Your task to perform on an android device: toggle improve location accuracy Image 0: 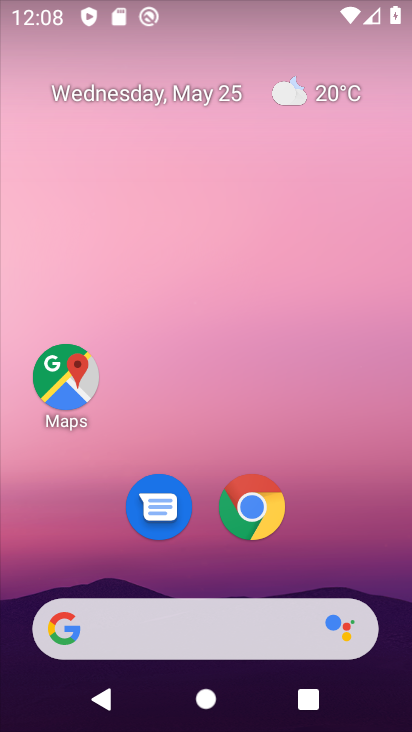
Step 0: drag from (356, 546) to (302, 101)
Your task to perform on an android device: toggle improve location accuracy Image 1: 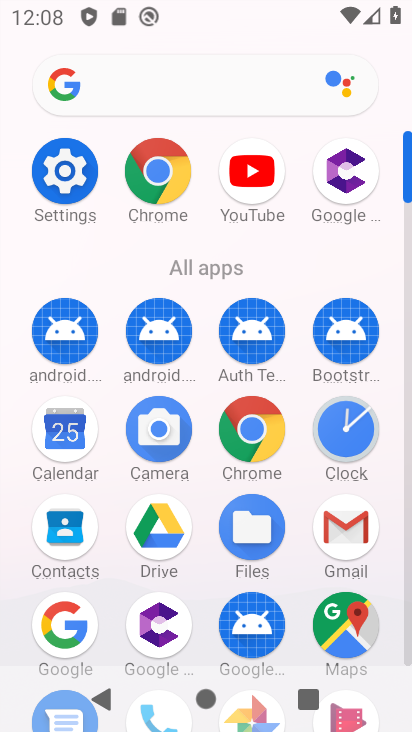
Step 1: click (54, 198)
Your task to perform on an android device: toggle improve location accuracy Image 2: 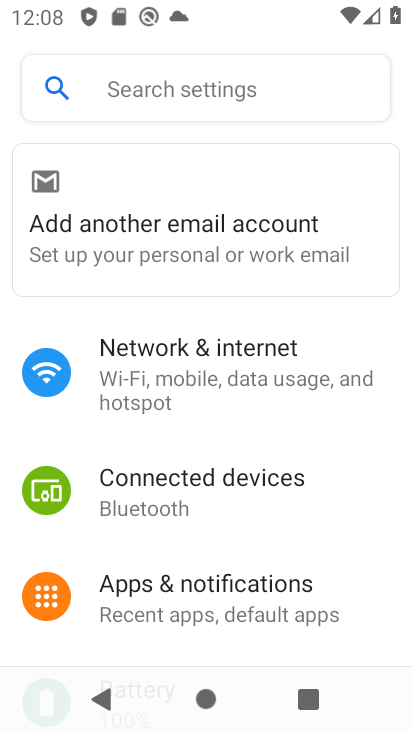
Step 2: drag from (194, 566) to (194, 223)
Your task to perform on an android device: toggle improve location accuracy Image 3: 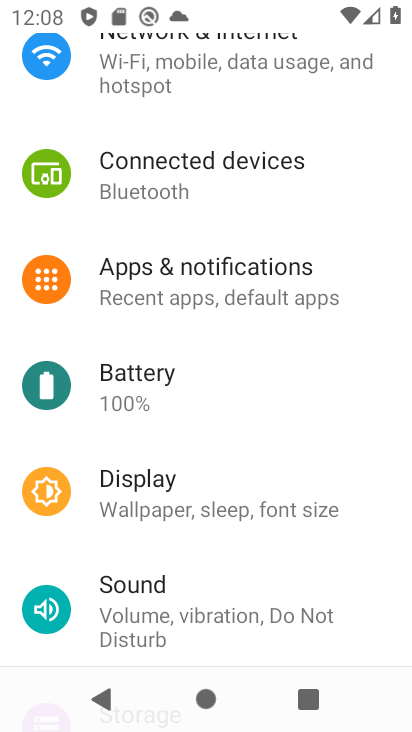
Step 3: drag from (225, 572) to (243, 240)
Your task to perform on an android device: toggle improve location accuracy Image 4: 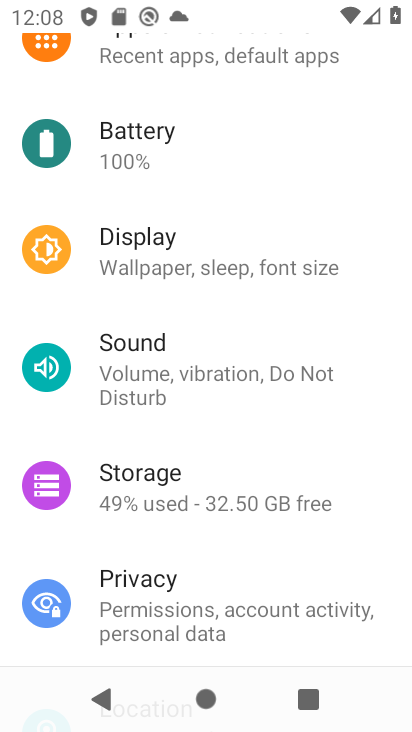
Step 4: drag from (226, 505) to (232, 173)
Your task to perform on an android device: toggle improve location accuracy Image 5: 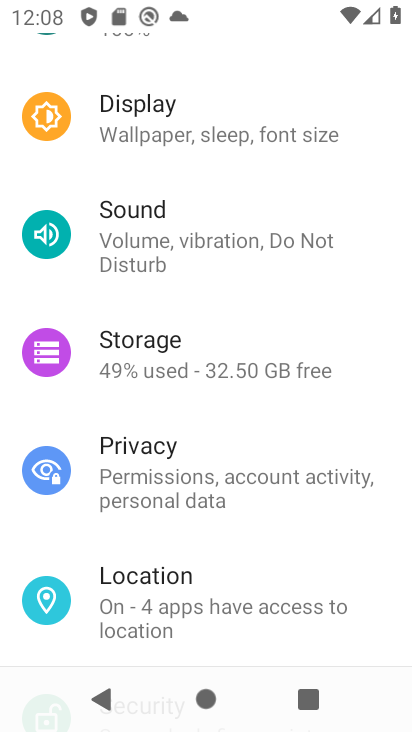
Step 5: click (182, 589)
Your task to perform on an android device: toggle improve location accuracy Image 6: 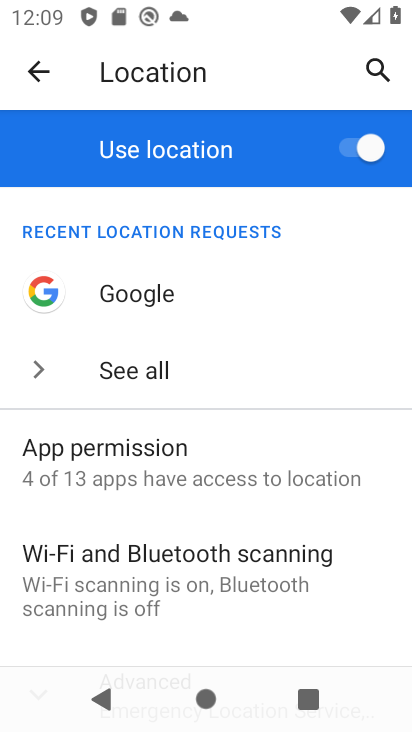
Step 6: drag from (223, 563) to (242, 259)
Your task to perform on an android device: toggle improve location accuracy Image 7: 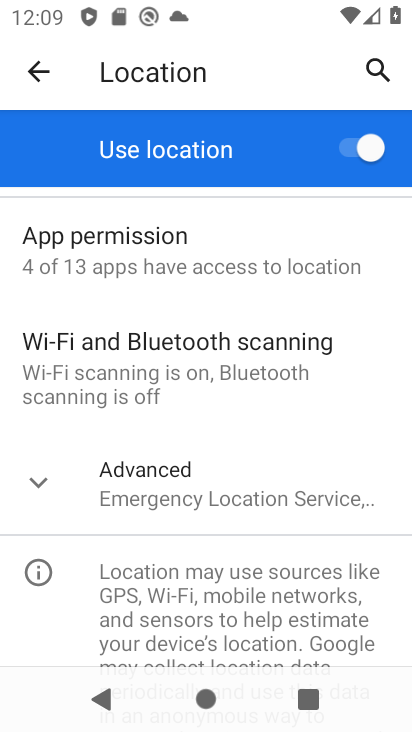
Step 7: click (219, 507)
Your task to perform on an android device: toggle improve location accuracy Image 8: 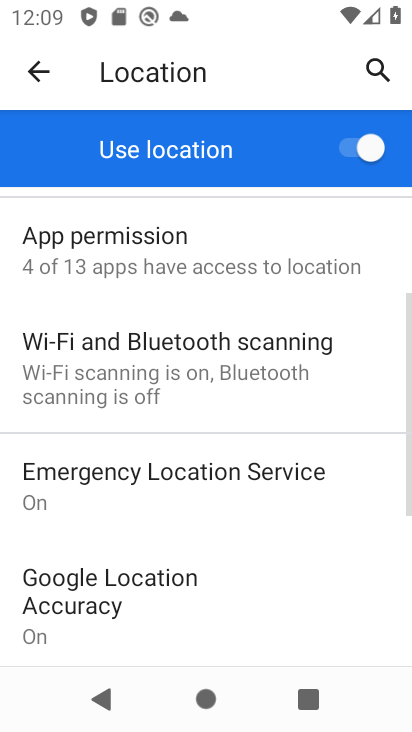
Step 8: drag from (241, 613) to (257, 308)
Your task to perform on an android device: toggle improve location accuracy Image 9: 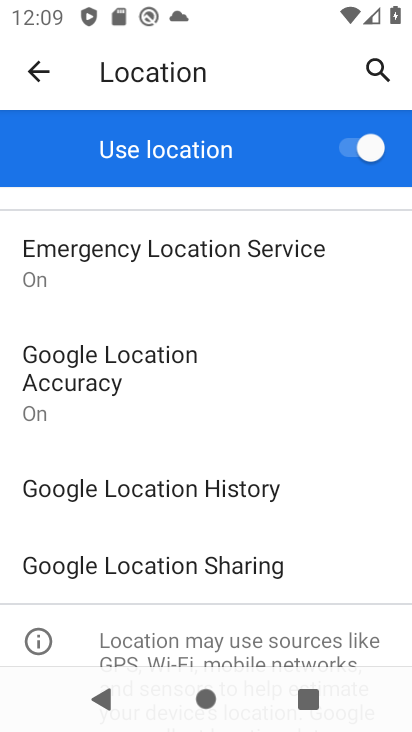
Step 9: click (160, 359)
Your task to perform on an android device: toggle improve location accuracy Image 10: 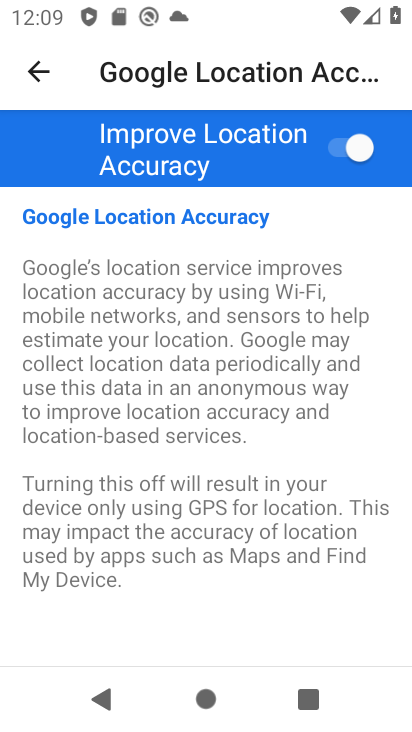
Step 10: click (341, 154)
Your task to perform on an android device: toggle improve location accuracy Image 11: 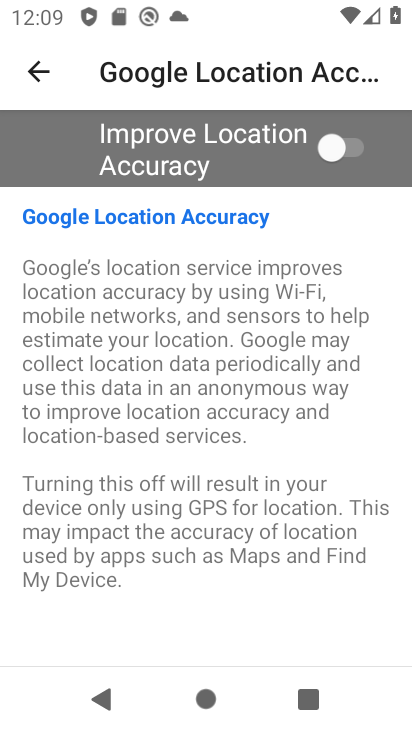
Step 11: task complete